Your task to perform on an android device: Open accessibility settings Image 0: 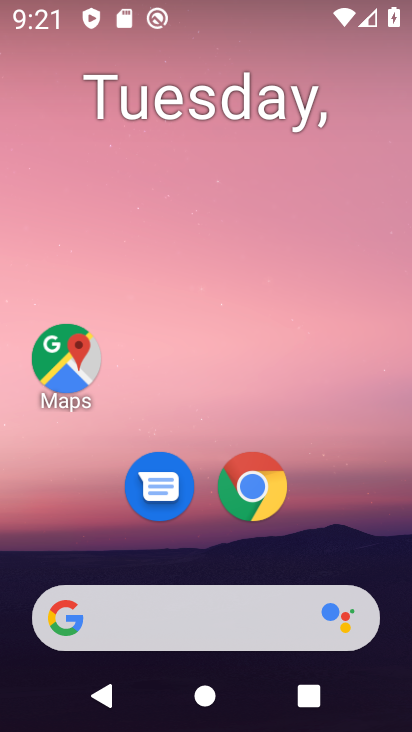
Step 0: press home button
Your task to perform on an android device: Open accessibility settings Image 1: 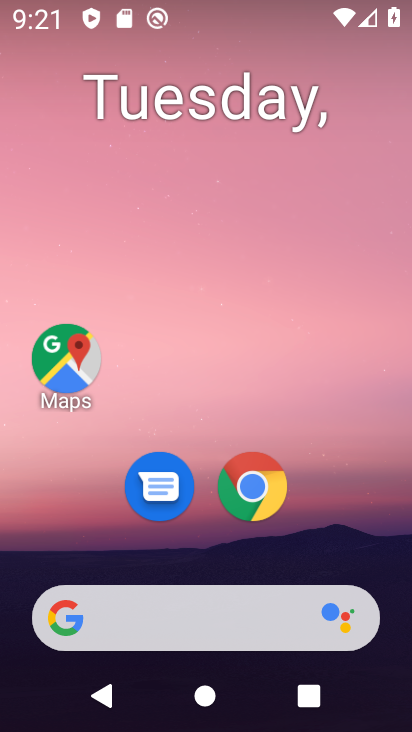
Step 1: drag from (377, 526) to (388, 237)
Your task to perform on an android device: Open accessibility settings Image 2: 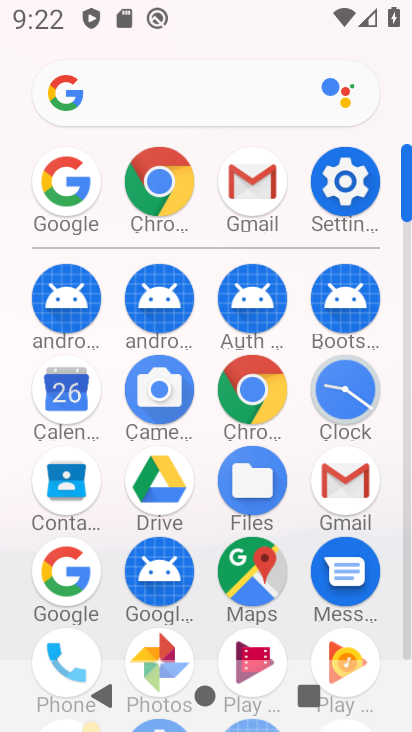
Step 2: click (358, 197)
Your task to perform on an android device: Open accessibility settings Image 3: 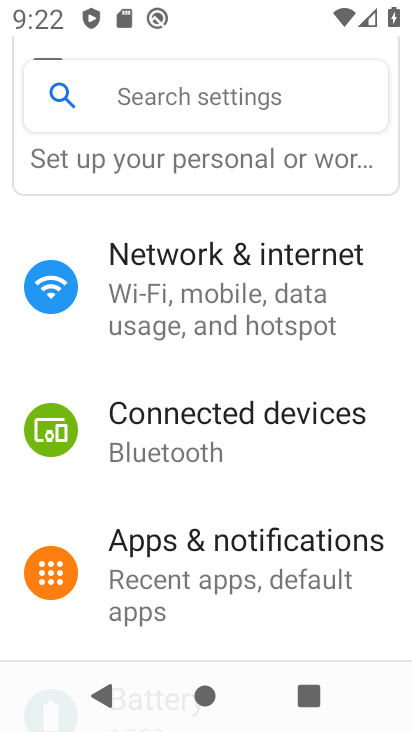
Step 3: drag from (286, 494) to (292, 384)
Your task to perform on an android device: Open accessibility settings Image 4: 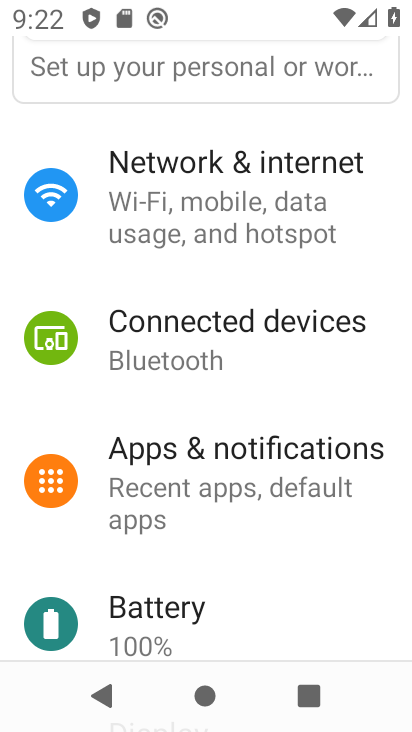
Step 4: drag from (297, 551) to (297, 487)
Your task to perform on an android device: Open accessibility settings Image 5: 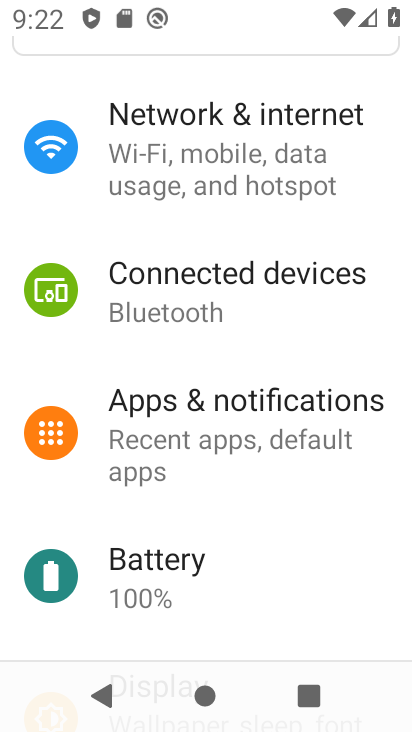
Step 5: drag from (284, 545) to (287, 490)
Your task to perform on an android device: Open accessibility settings Image 6: 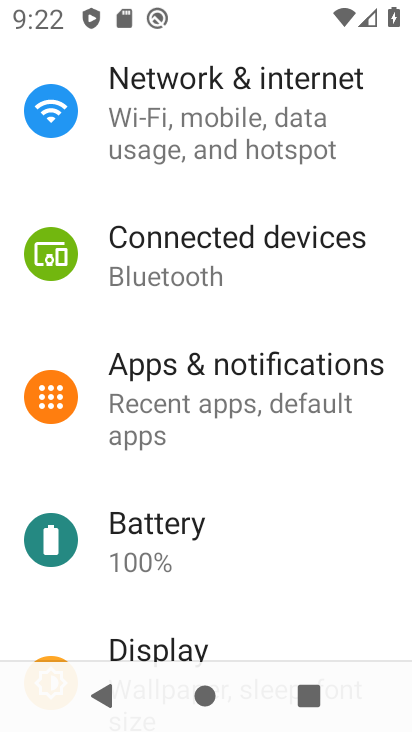
Step 6: drag from (280, 556) to (283, 492)
Your task to perform on an android device: Open accessibility settings Image 7: 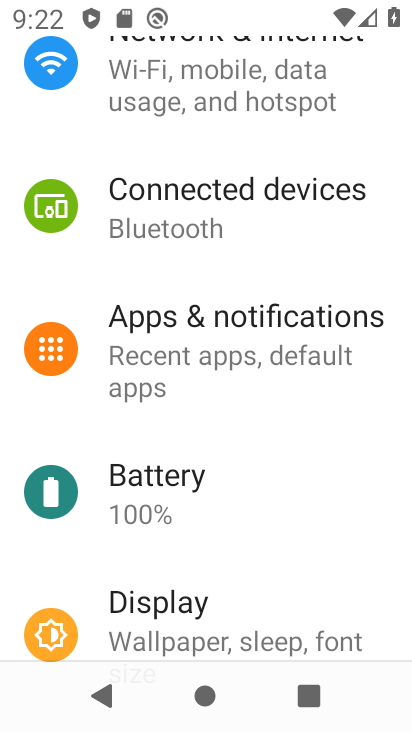
Step 7: drag from (280, 548) to (279, 496)
Your task to perform on an android device: Open accessibility settings Image 8: 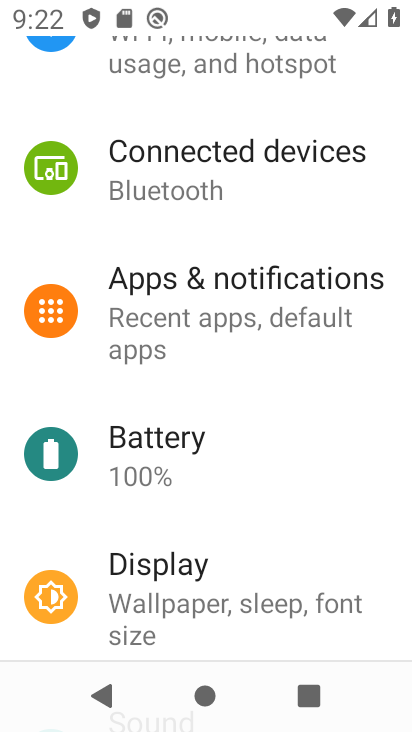
Step 8: click (269, 519)
Your task to perform on an android device: Open accessibility settings Image 9: 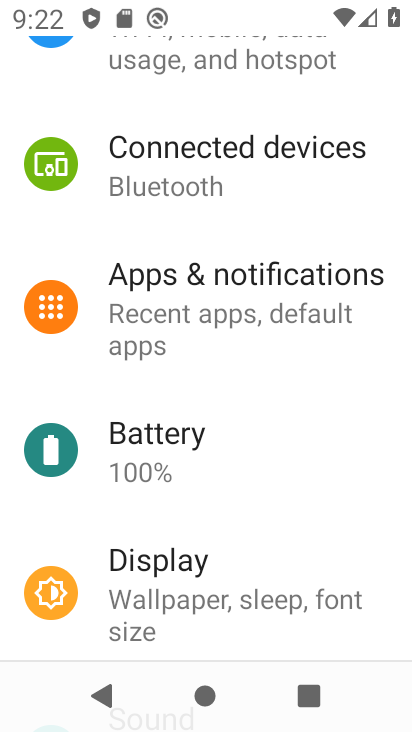
Step 9: drag from (257, 557) to (257, 484)
Your task to perform on an android device: Open accessibility settings Image 10: 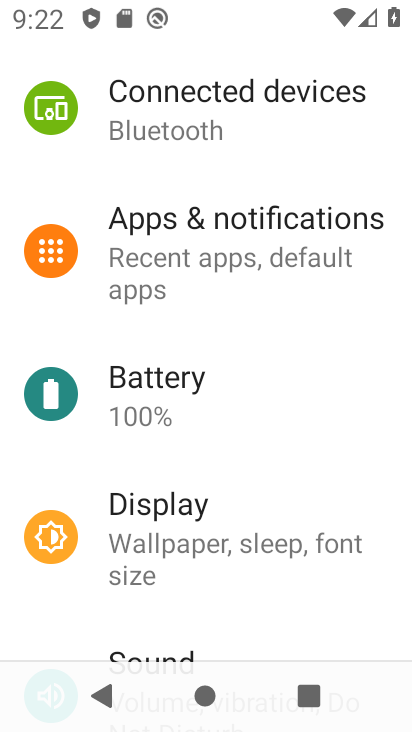
Step 10: drag from (255, 558) to (255, 504)
Your task to perform on an android device: Open accessibility settings Image 11: 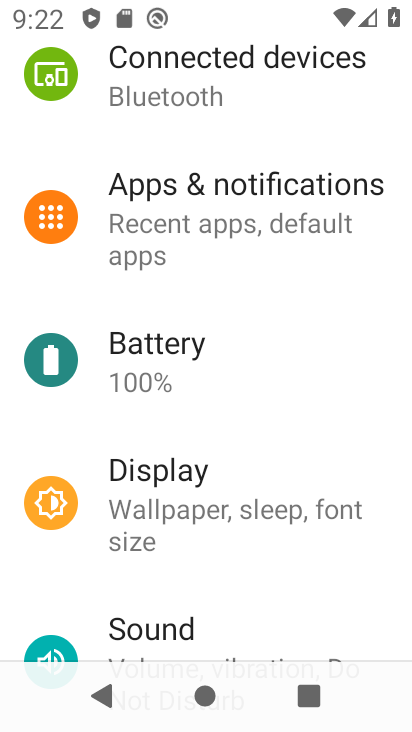
Step 11: drag from (239, 550) to (235, 508)
Your task to perform on an android device: Open accessibility settings Image 12: 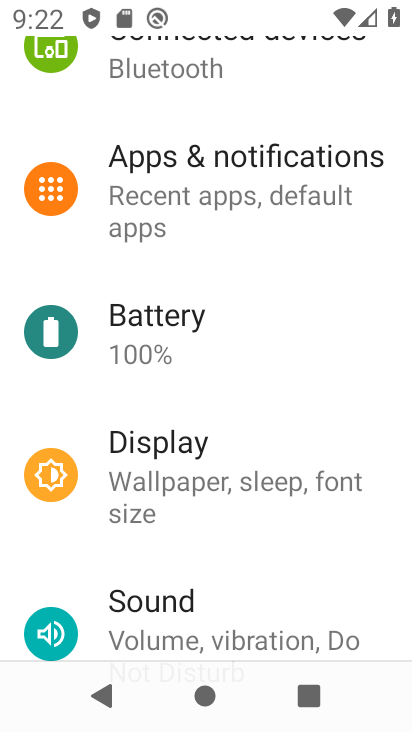
Step 12: drag from (191, 568) to (210, 491)
Your task to perform on an android device: Open accessibility settings Image 13: 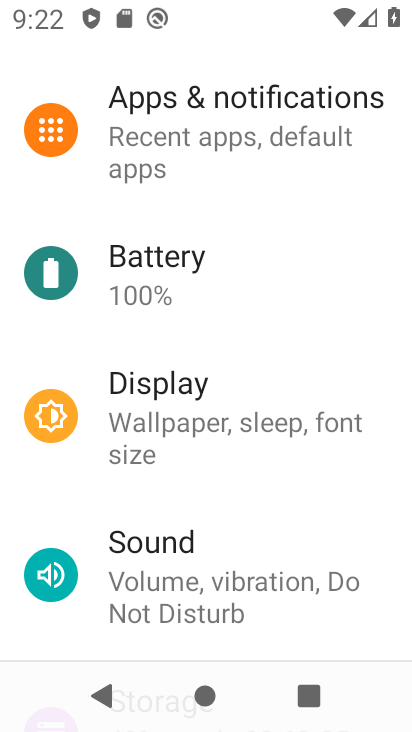
Step 13: drag from (249, 587) to (248, 474)
Your task to perform on an android device: Open accessibility settings Image 14: 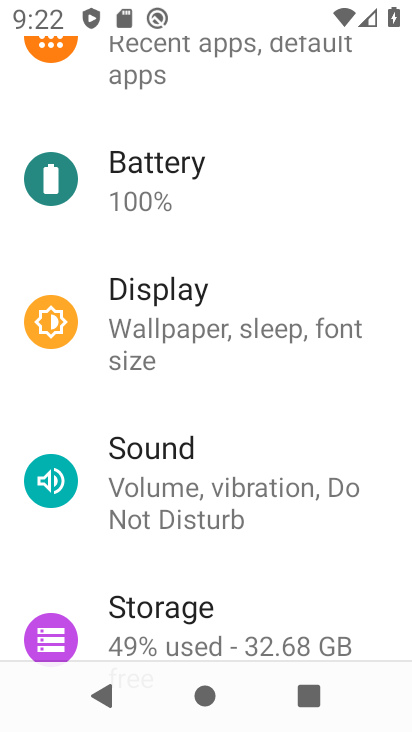
Step 14: drag from (246, 561) to (247, 506)
Your task to perform on an android device: Open accessibility settings Image 15: 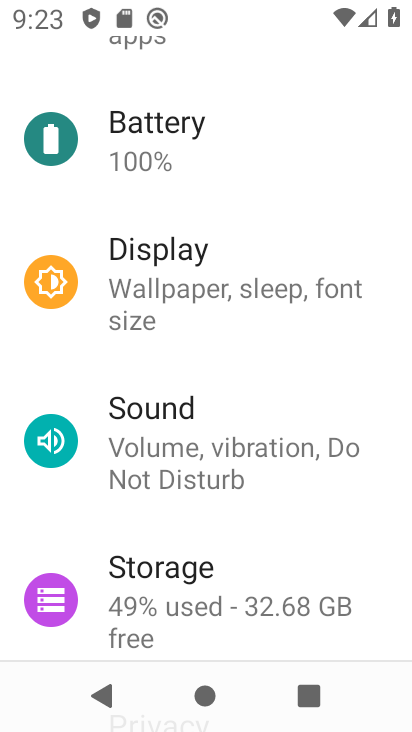
Step 15: drag from (242, 555) to (246, 366)
Your task to perform on an android device: Open accessibility settings Image 16: 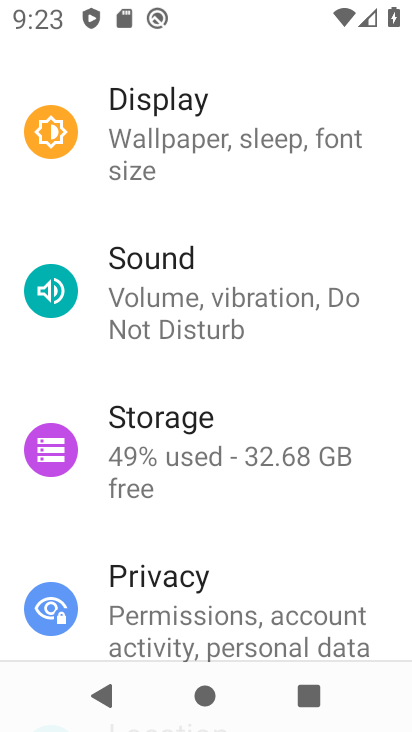
Step 16: drag from (290, 583) to (290, 369)
Your task to perform on an android device: Open accessibility settings Image 17: 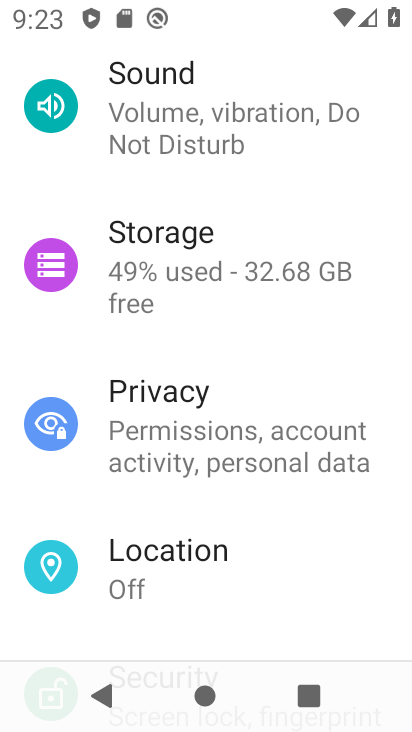
Step 17: drag from (305, 589) to (301, 393)
Your task to perform on an android device: Open accessibility settings Image 18: 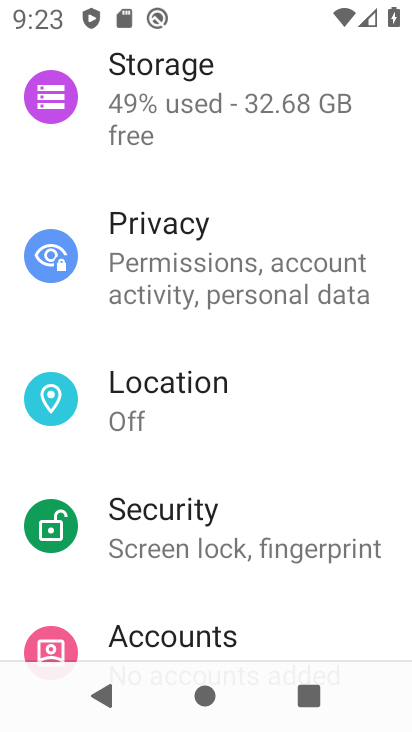
Step 18: drag from (315, 650) to (301, 360)
Your task to perform on an android device: Open accessibility settings Image 19: 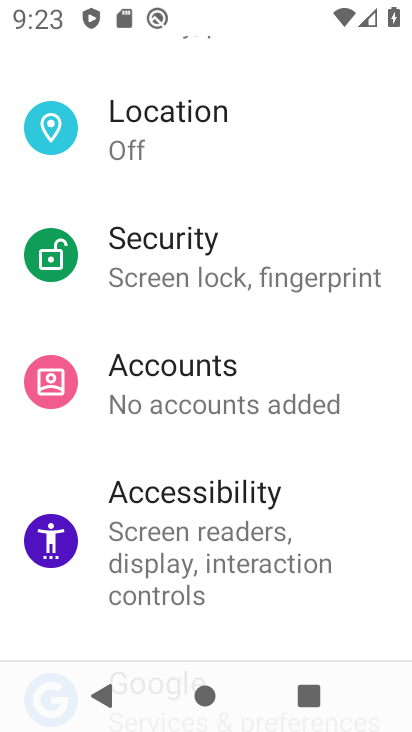
Step 19: click (294, 508)
Your task to perform on an android device: Open accessibility settings Image 20: 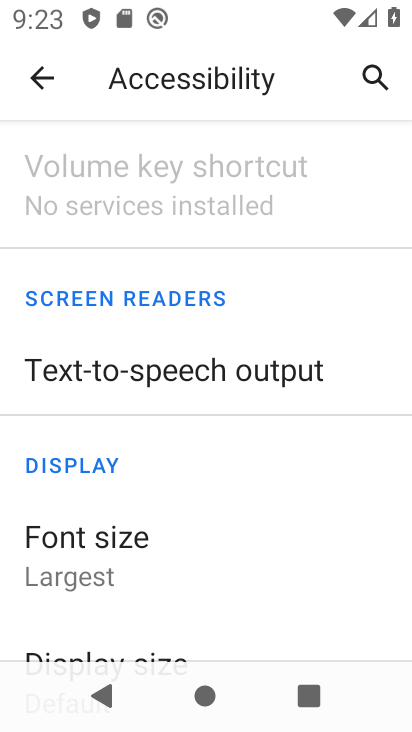
Step 20: task complete